Your task to perform on an android device: remove spam from my inbox in the gmail app Image 0: 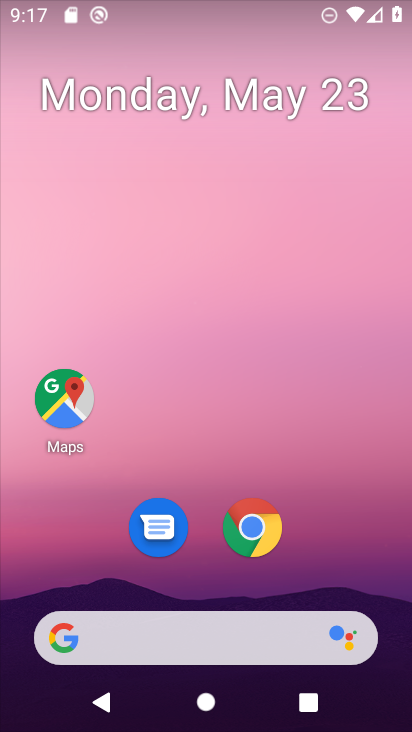
Step 0: drag from (215, 447) to (216, 7)
Your task to perform on an android device: remove spam from my inbox in the gmail app Image 1: 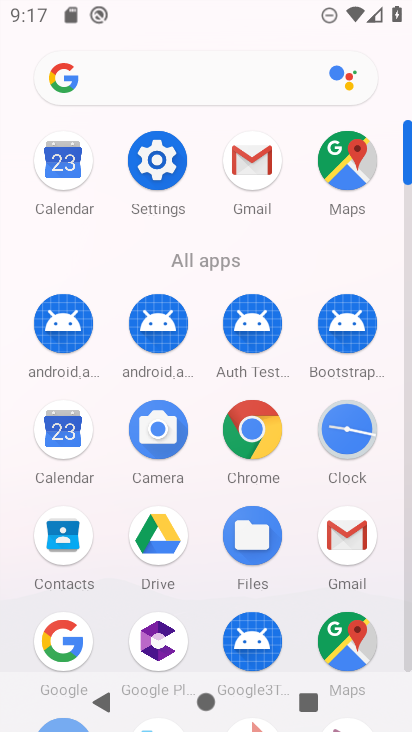
Step 1: click (251, 164)
Your task to perform on an android device: remove spam from my inbox in the gmail app Image 2: 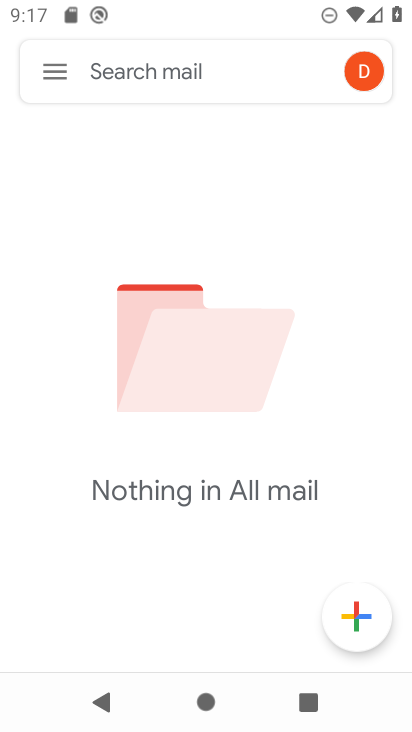
Step 2: click (62, 71)
Your task to perform on an android device: remove spam from my inbox in the gmail app Image 3: 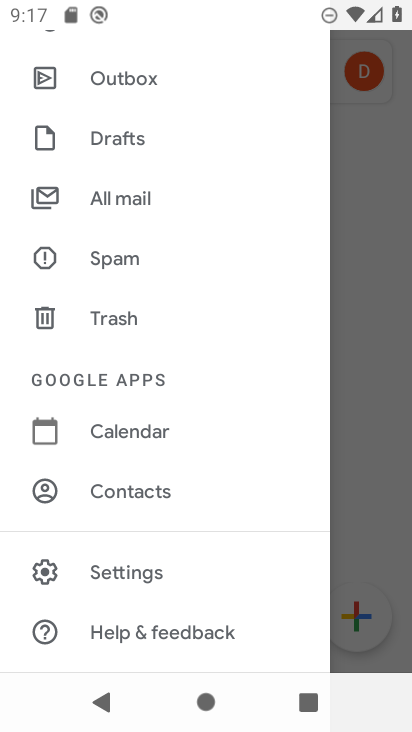
Step 3: click (127, 250)
Your task to perform on an android device: remove spam from my inbox in the gmail app Image 4: 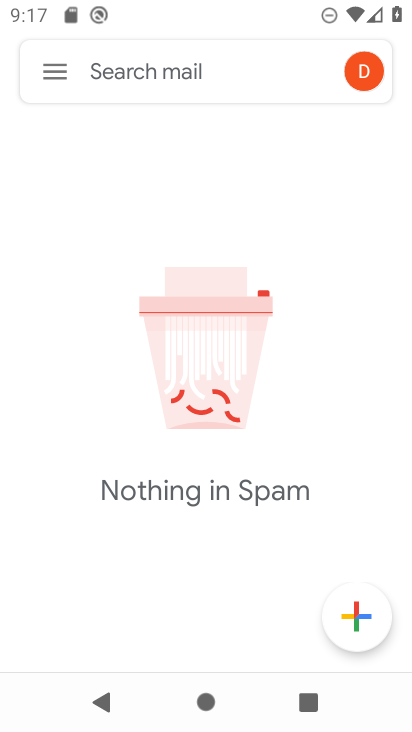
Step 4: task complete